Your task to perform on an android device: Open my contact list Image 0: 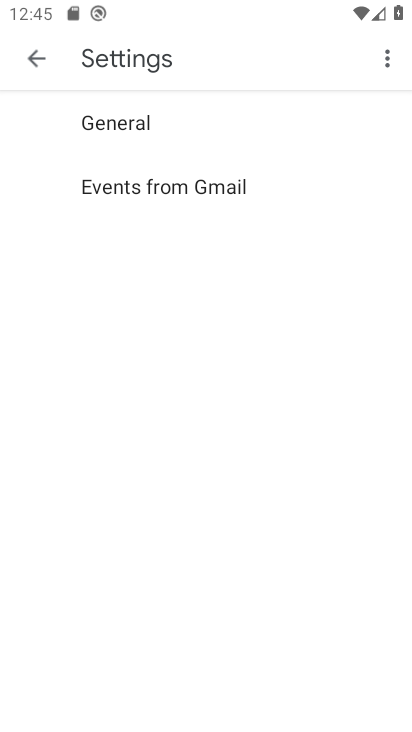
Step 0: press home button
Your task to perform on an android device: Open my contact list Image 1: 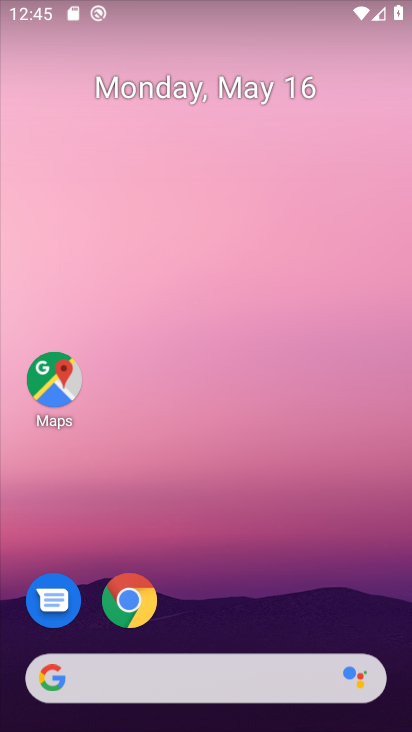
Step 1: drag from (246, 598) to (294, 135)
Your task to perform on an android device: Open my contact list Image 2: 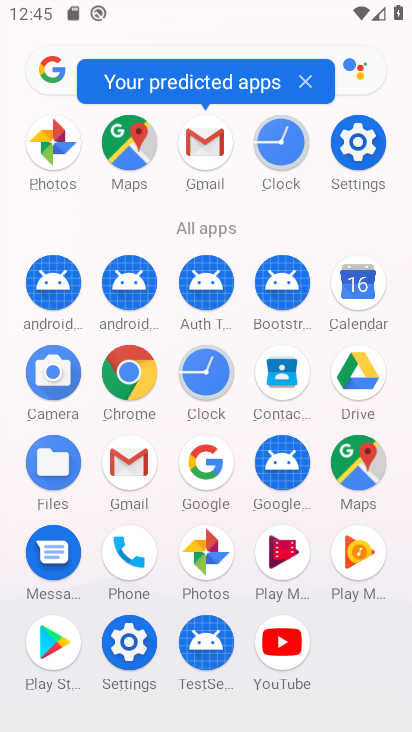
Step 2: click (119, 550)
Your task to perform on an android device: Open my contact list Image 3: 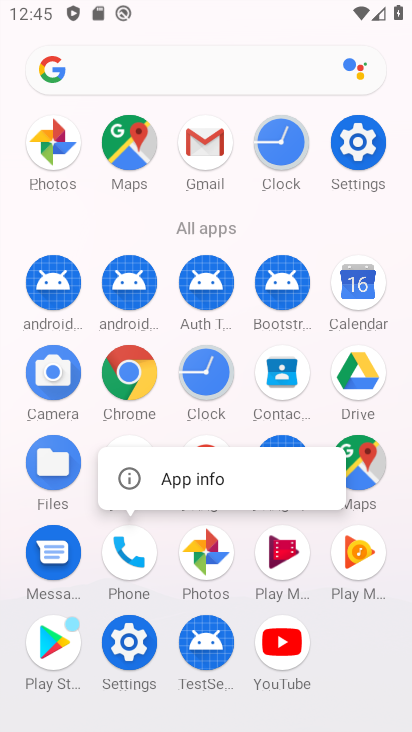
Step 3: click (127, 572)
Your task to perform on an android device: Open my contact list Image 4: 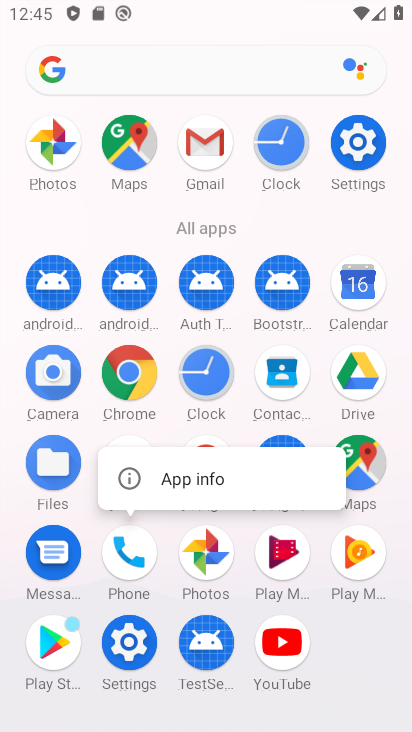
Step 4: click (127, 572)
Your task to perform on an android device: Open my contact list Image 5: 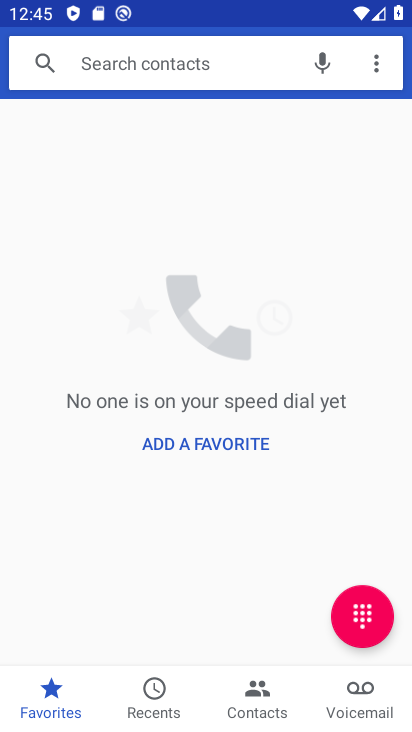
Step 5: click (271, 698)
Your task to perform on an android device: Open my contact list Image 6: 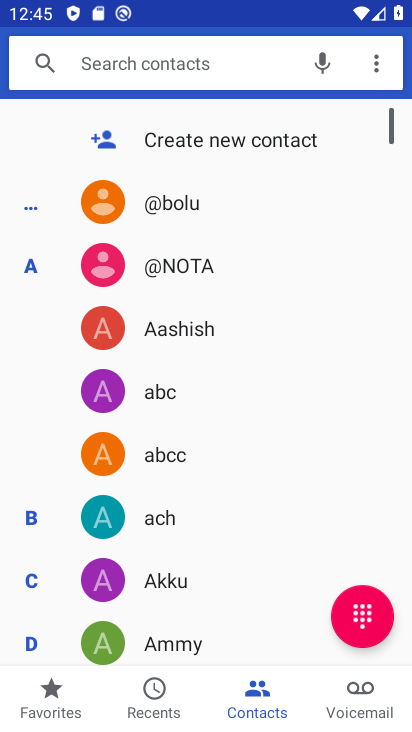
Step 6: task complete